Your task to perform on an android device: Open settings on Google Maps Image 0: 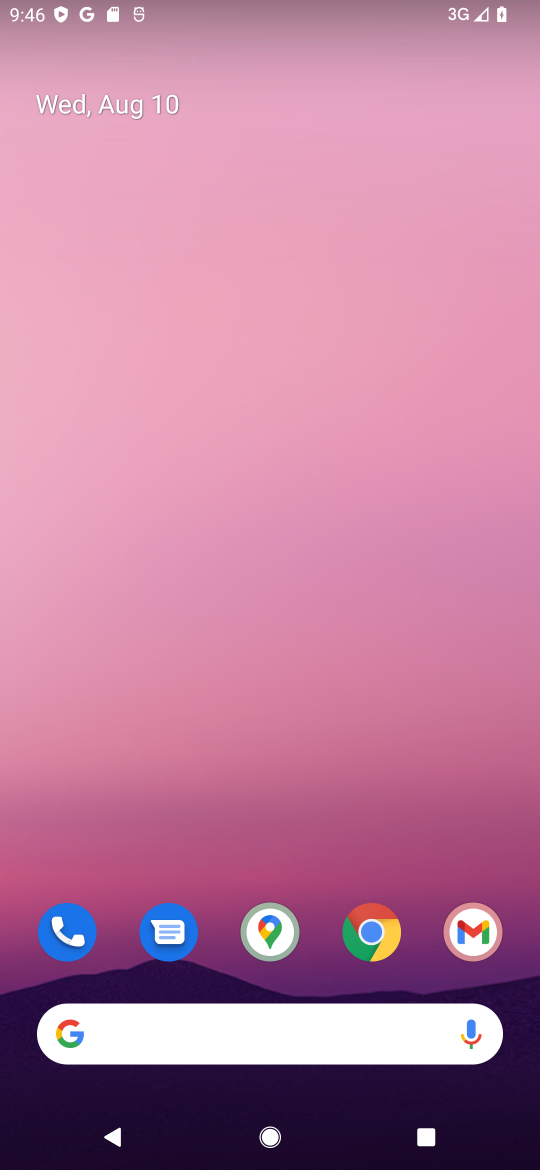
Step 0: click (275, 924)
Your task to perform on an android device: Open settings on Google Maps Image 1: 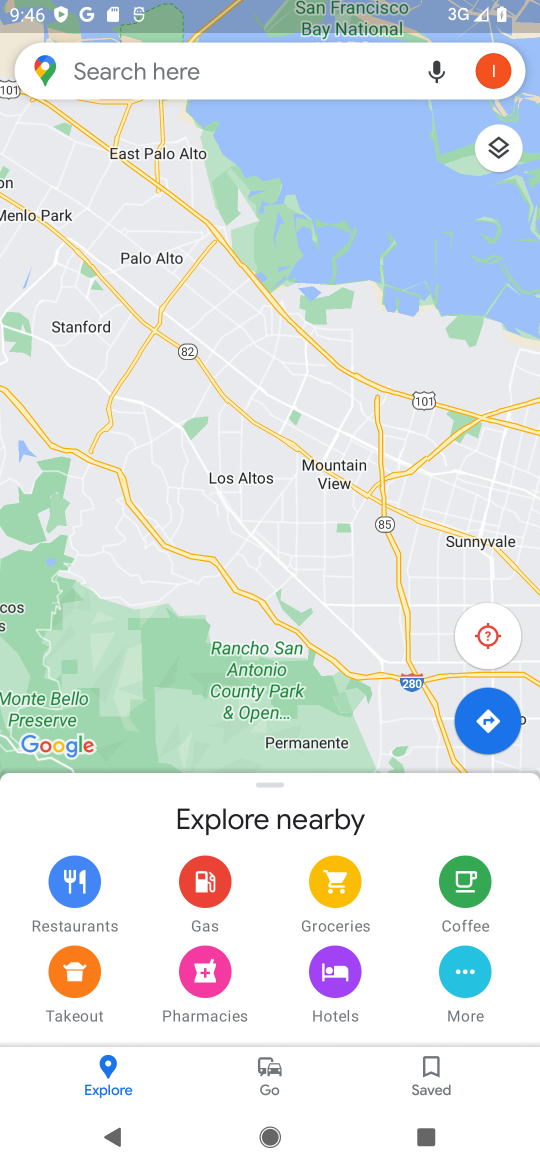
Step 1: click (503, 55)
Your task to perform on an android device: Open settings on Google Maps Image 2: 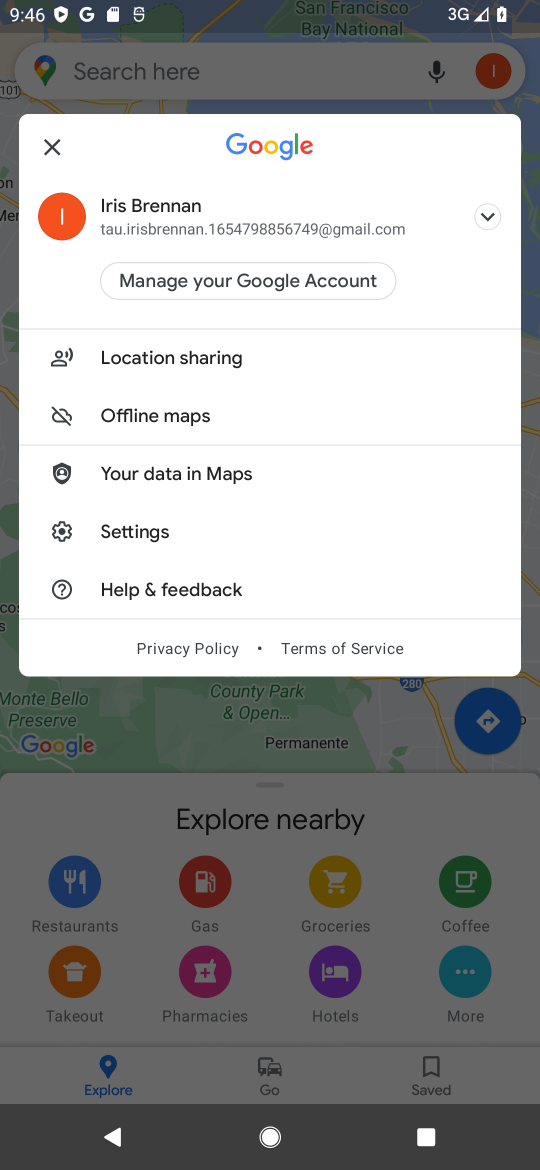
Step 2: click (127, 529)
Your task to perform on an android device: Open settings on Google Maps Image 3: 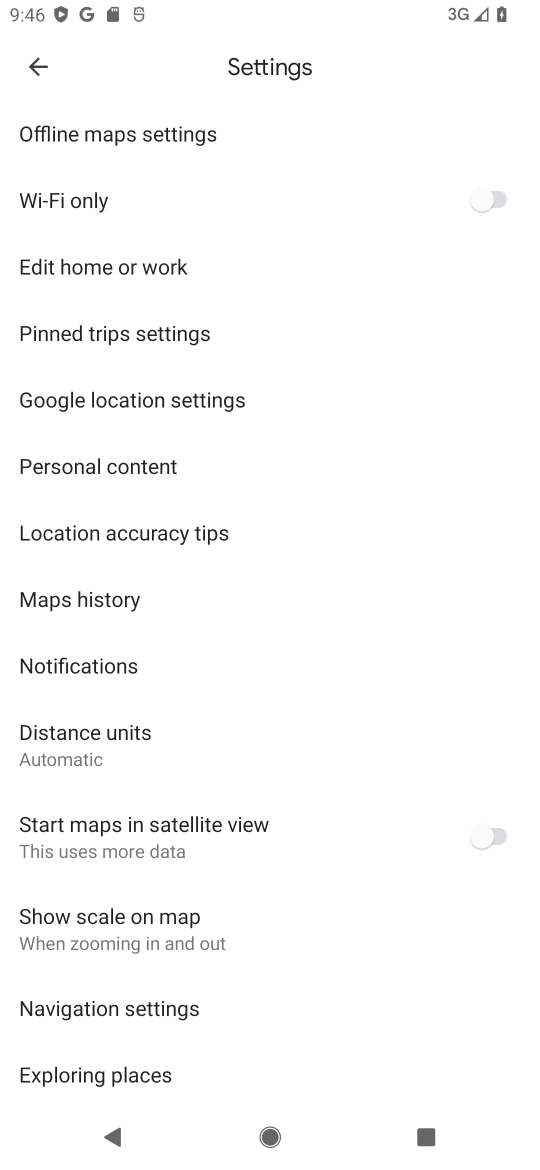
Step 3: task complete